Your task to perform on an android device: all mails in gmail Image 0: 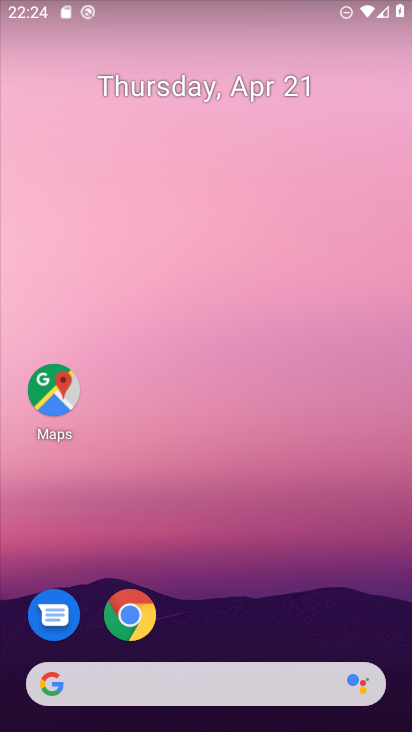
Step 0: drag from (234, 382) to (285, 96)
Your task to perform on an android device: all mails in gmail Image 1: 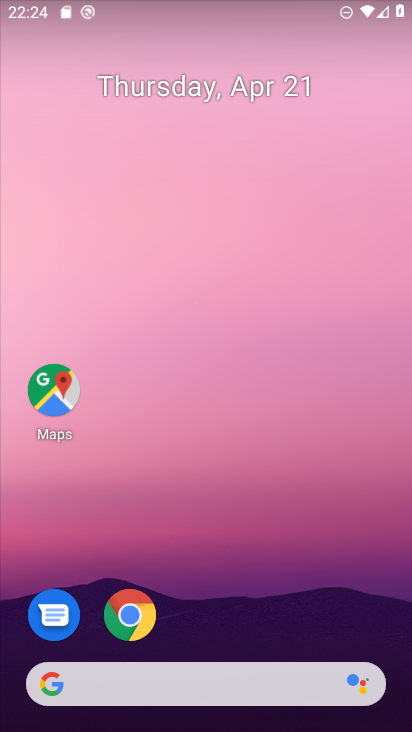
Step 1: drag from (188, 618) to (229, 165)
Your task to perform on an android device: all mails in gmail Image 2: 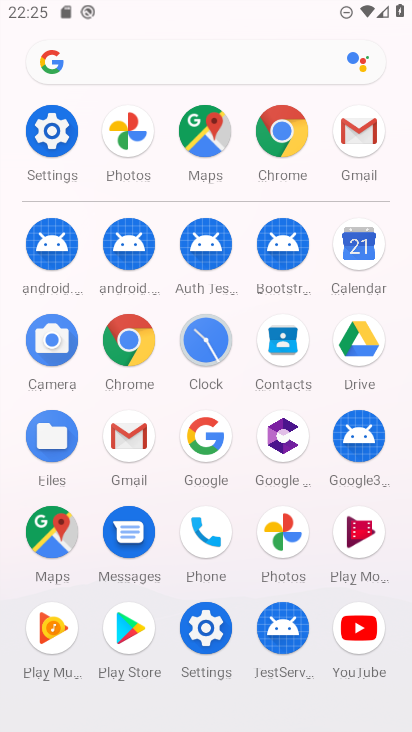
Step 2: click (123, 432)
Your task to perform on an android device: all mails in gmail Image 3: 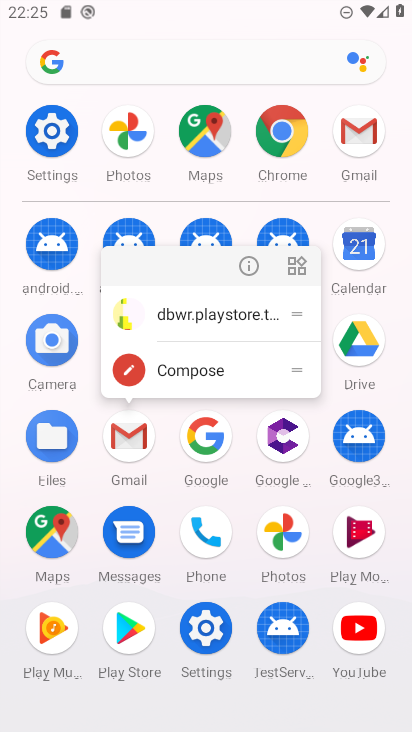
Step 3: click (236, 248)
Your task to perform on an android device: all mails in gmail Image 4: 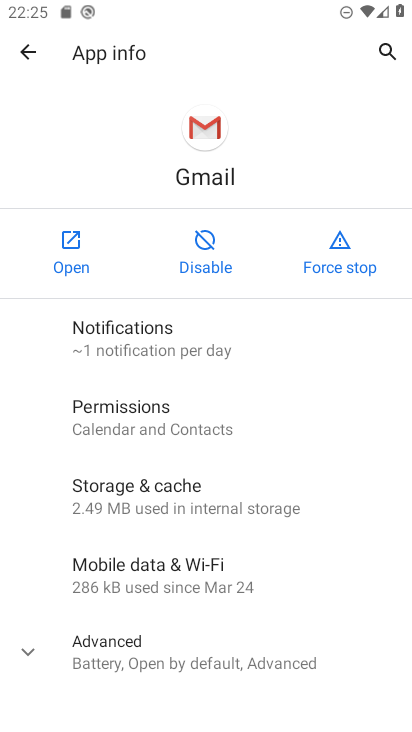
Step 4: click (54, 240)
Your task to perform on an android device: all mails in gmail Image 5: 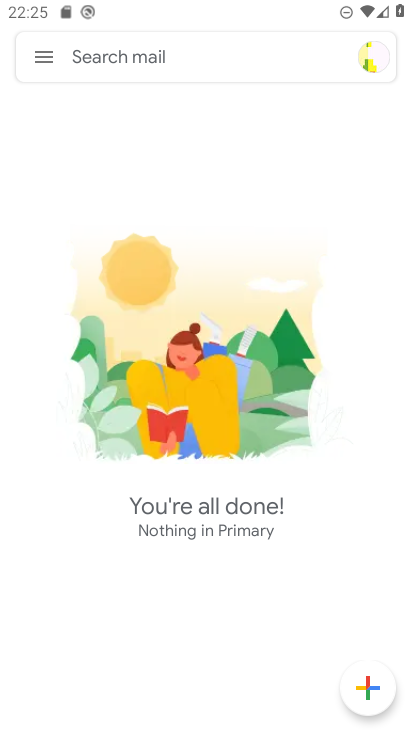
Step 5: click (44, 64)
Your task to perform on an android device: all mails in gmail Image 6: 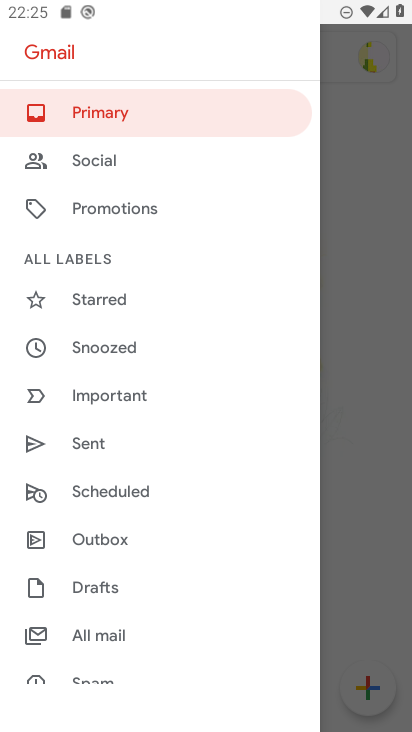
Step 6: drag from (142, 602) to (251, 76)
Your task to perform on an android device: all mails in gmail Image 7: 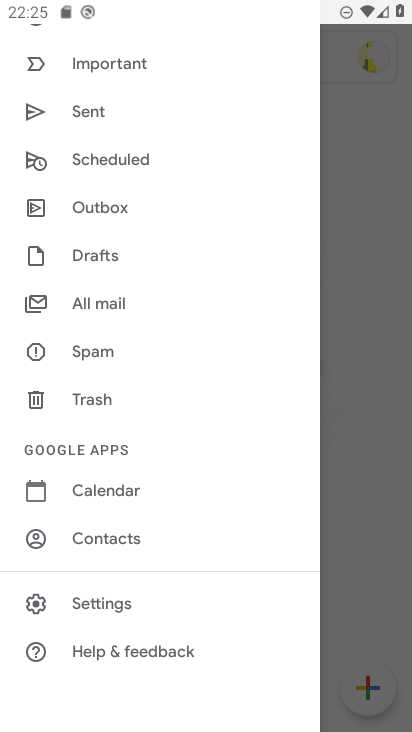
Step 7: click (105, 303)
Your task to perform on an android device: all mails in gmail Image 8: 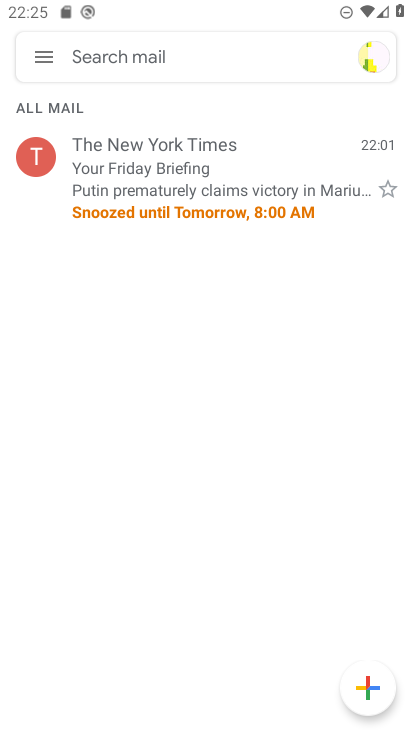
Step 8: drag from (200, 578) to (287, 144)
Your task to perform on an android device: all mails in gmail Image 9: 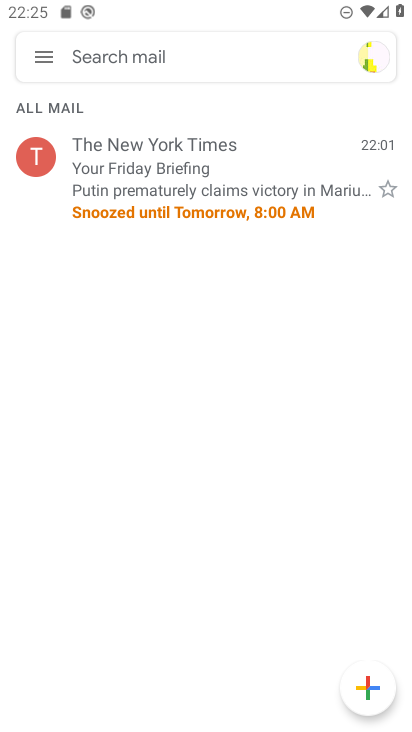
Step 9: click (54, 68)
Your task to perform on an android device: all mails in gmail Image 10: 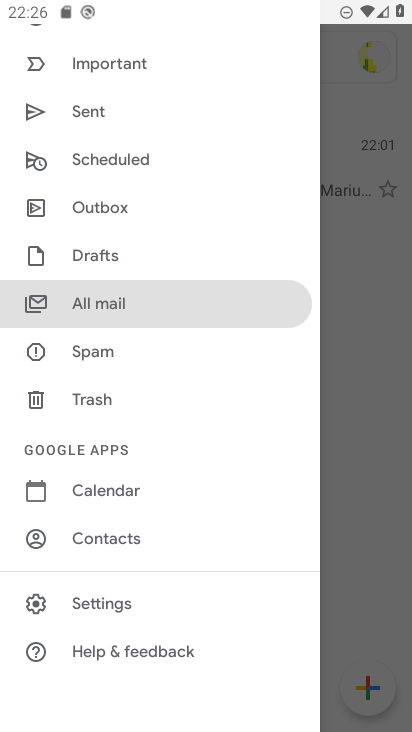
Step 10: drag from (184, 459) to (231, 143)
Your task to perform on an android device: all mails in gmail Image 11: 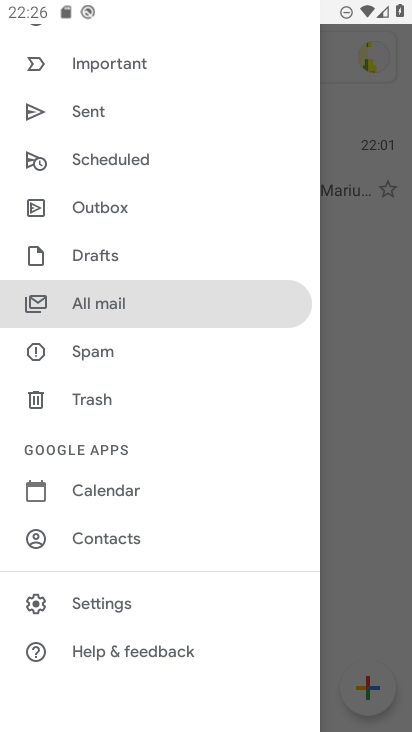
Step 11: click (72, 327)
Your task to perform on an android device: all mails in gmail Image 12: 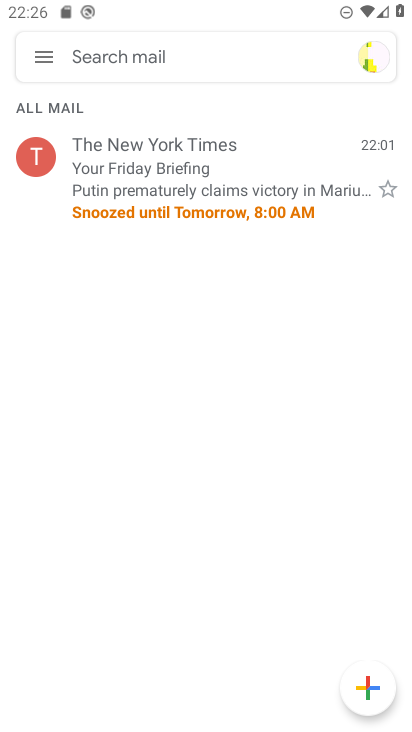
Step 12: task complete